Your task to perform on an android device: open device folders in google photos Image 0: 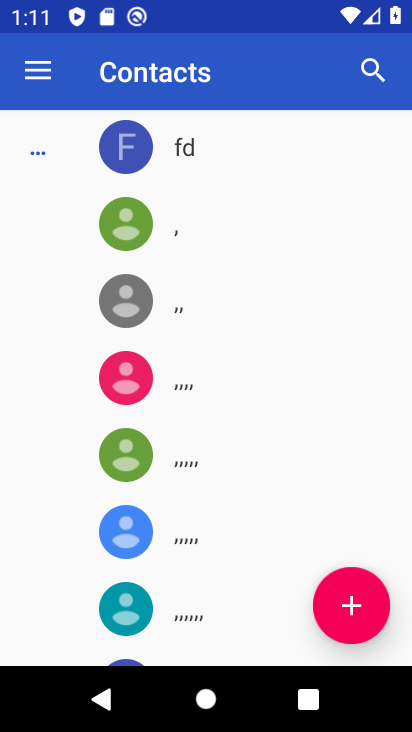
Step 0: press home button
Your task to perform on an android device: open device folders in google photos Image 1: 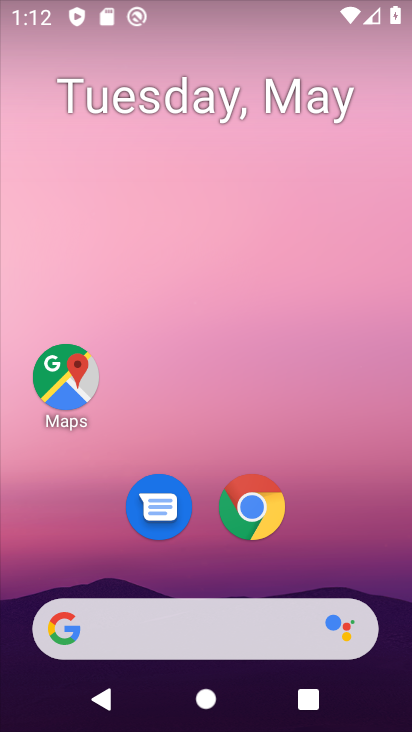
Step 1: drag from (396, 566) to (328, 13)
Your task to perform on an android device: open device folders in google photos Image 2: 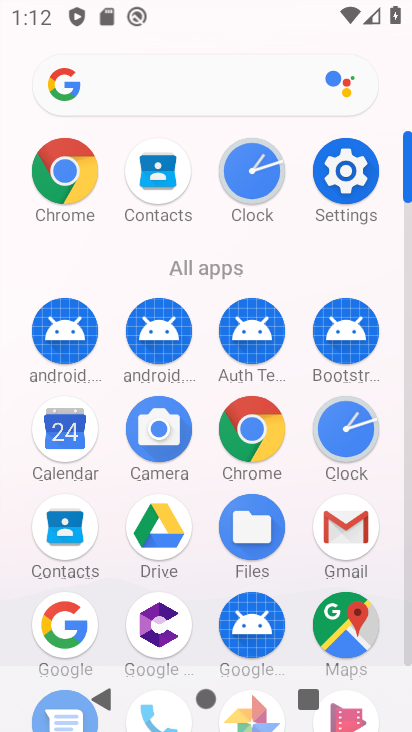
Step 2: click (400, 640)
Your task to perform on an android device: open device folders in google photos Image 3: 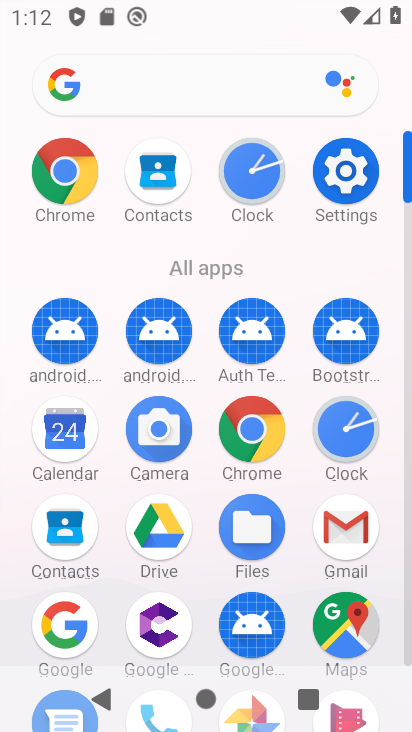
Step 3: click (404, 640)
Your task to perform on an android device: open device folders in google photos Image 4: 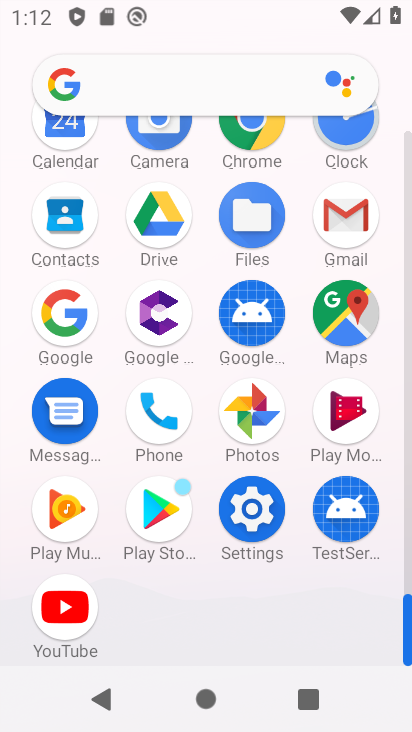
Step 4: click (261, 414)
Your task to perform on an android device: open device folders in google photos Image 5: 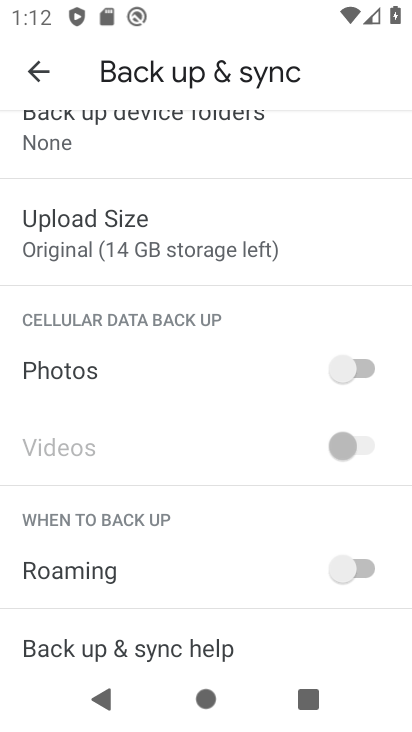
Step 5: click (29, 63)
Your task to perform on an android device: open device folders in google photos Image 6: 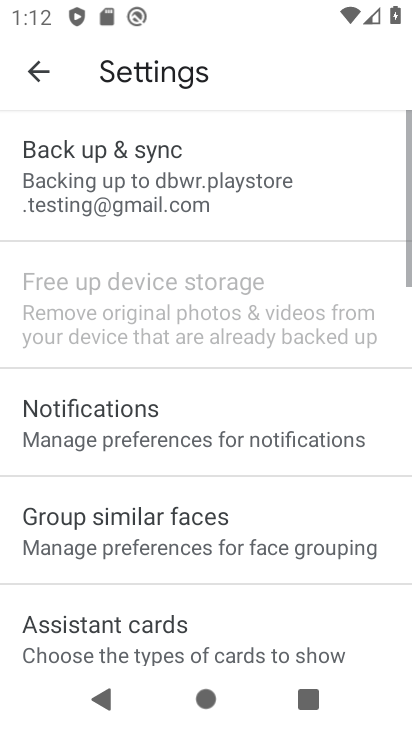
Step 6: click (29, 63)
Your task to perform on an android device: open device folders in google photos Image 7: 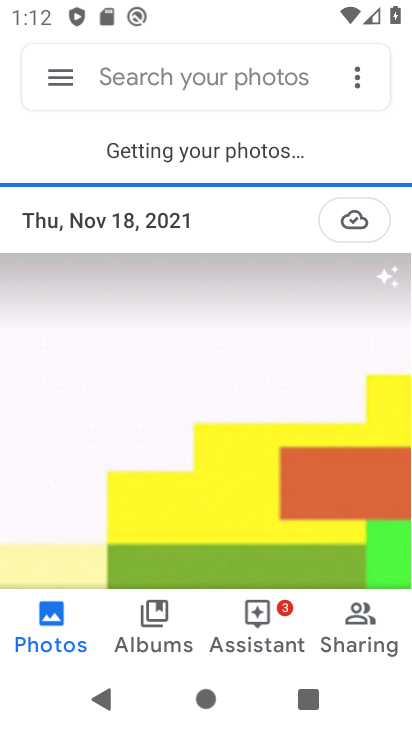
Step 7: click (29, 63)
Your task to perform on an android device: open device folders in google photos Image 8: 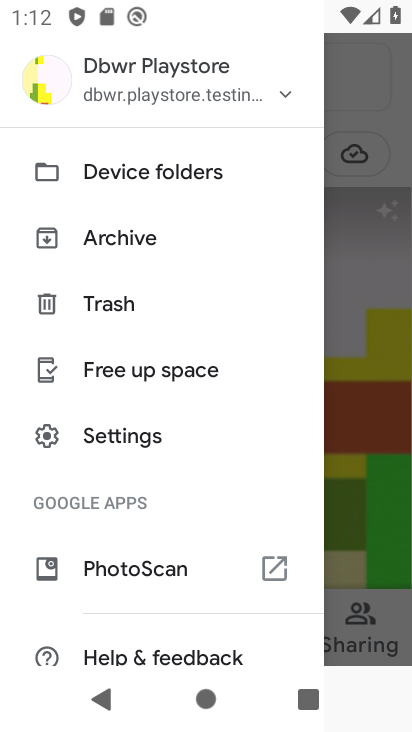
Step 8: click (100, 159)
Your task to perform on an android device: open device folders in google photos Image 9: 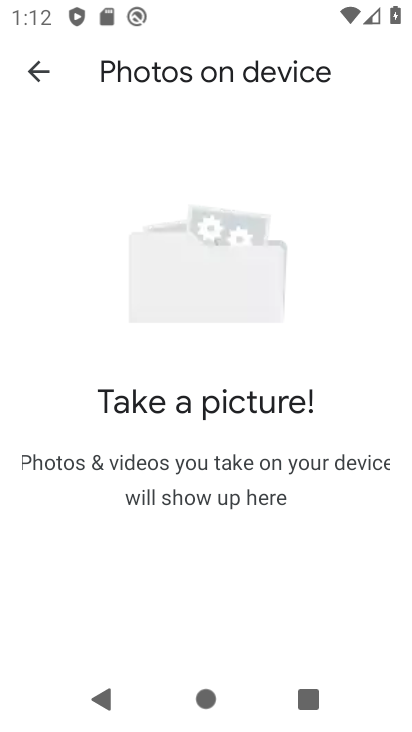
Step 9: task complete